Your task to perform on an android device: Turn on the flashlight Image 0: 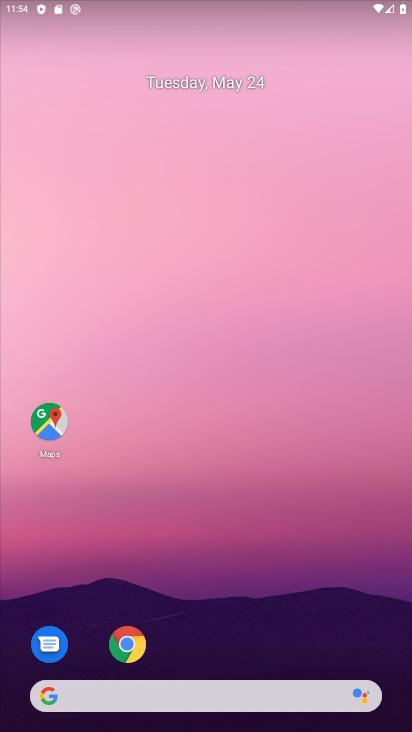
Step 0: drag from (255, 6) to (268, 635)
Your task to perform on an android device: Turn on the flashlight Image 1: 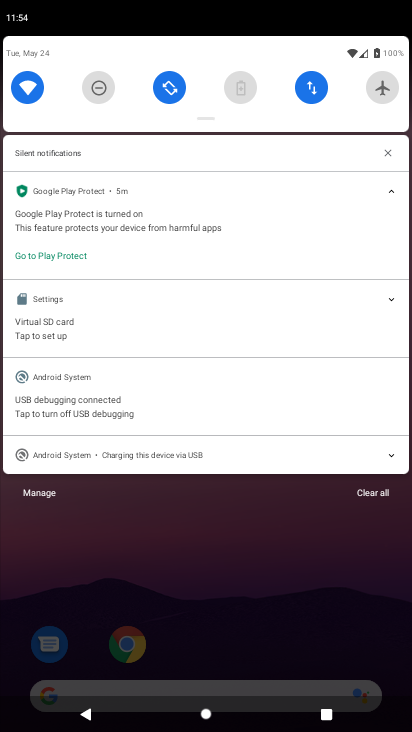
Step 1: task complete